Your task to perform on an android device: turn on the 12-hour format for clock Image 0: 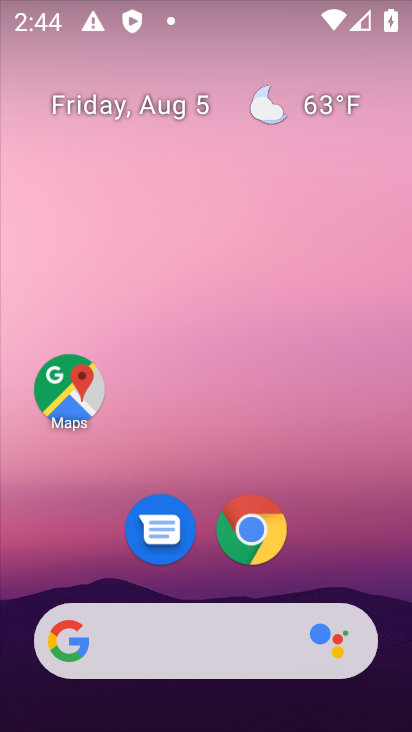
Step 0: press home button
Your task to perform on an android device: turn on the 12-hour format for clock Image 1: 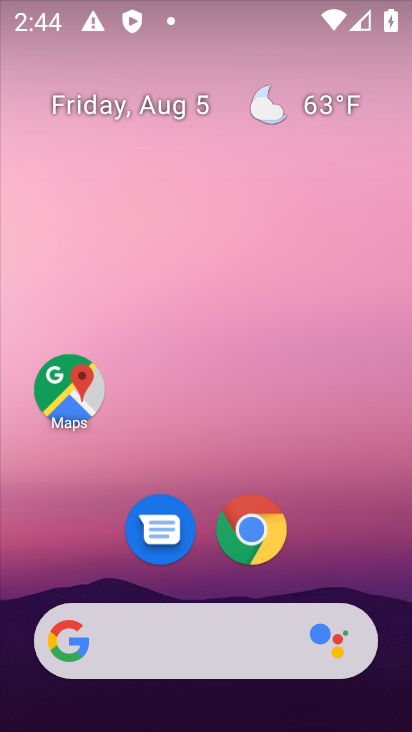
Step 1: drag from (224, 522) to (253, 99)
Your task to perform on an android device: turn on the 12-hour format for clock Image 2: 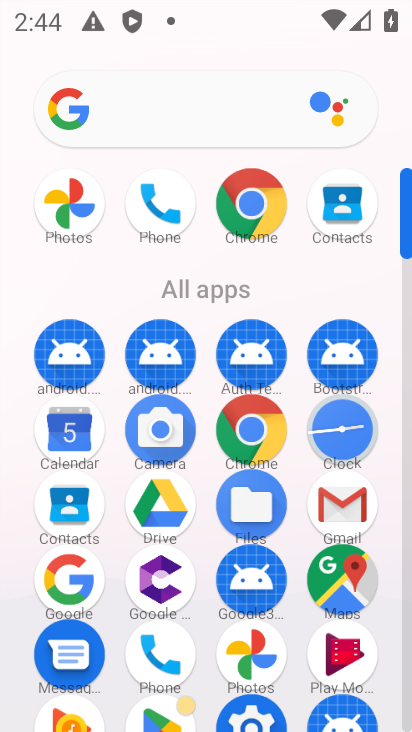
Step 2: drag from (303, 411) to (333, 104)
Your task to perform on an android device: turn on the 12-hour format for clock Image 3: 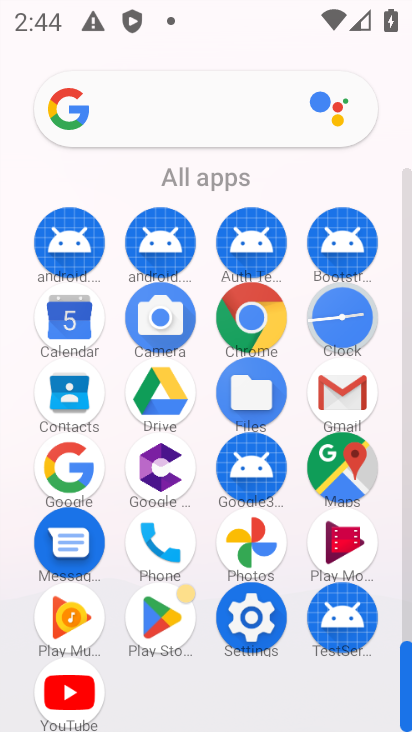
Step 3: click (248, 611)
Your task to perform on an android device: turn on the 12-hour format for clock Image 4: 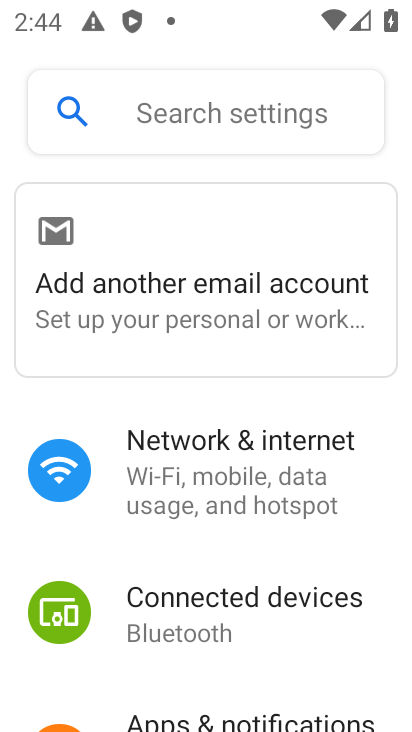
Step 4: drag from (292, 684) to (260, 34)
Your task to perform on an android device: turn on the 12-hour format for clock Image 5: 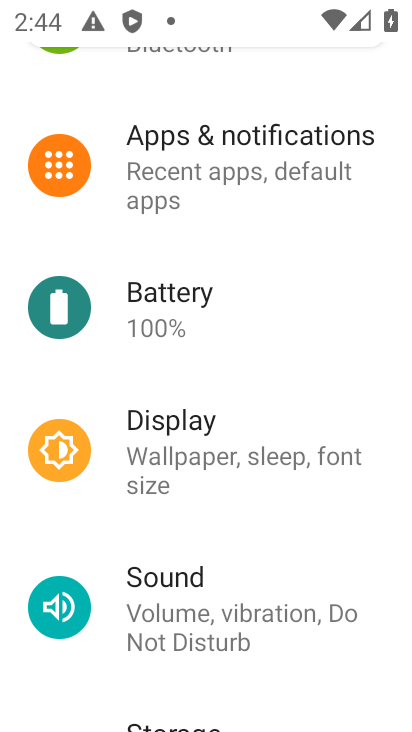
Step 5: drag from (333, 668) to (316, 25)
Your task to perform on an android device: turn on the 12-hour format for clock Image 6: 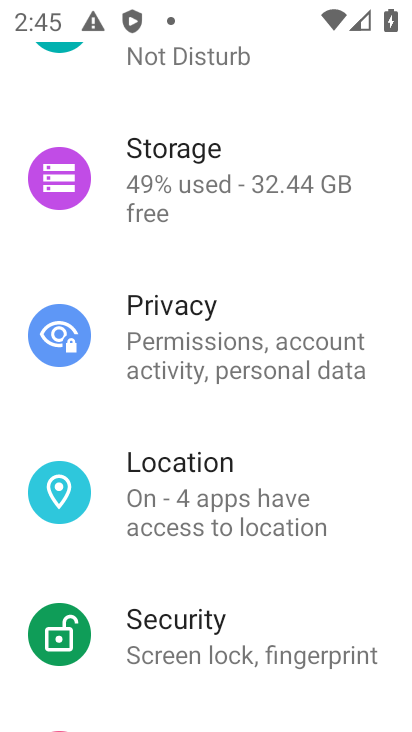
Step 6: drag from (232, 593) to (212, 51)
Your task to perform on an android device: turn on the 12-hour format for clock Image 7: 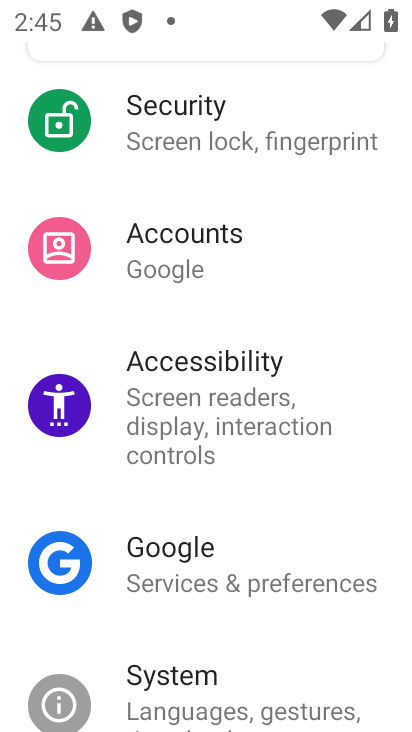
Step 7: drag from (311, 676) to (264, 1)
Your task to perform on an android device: turn on the 12-hour format for clock Image 8: 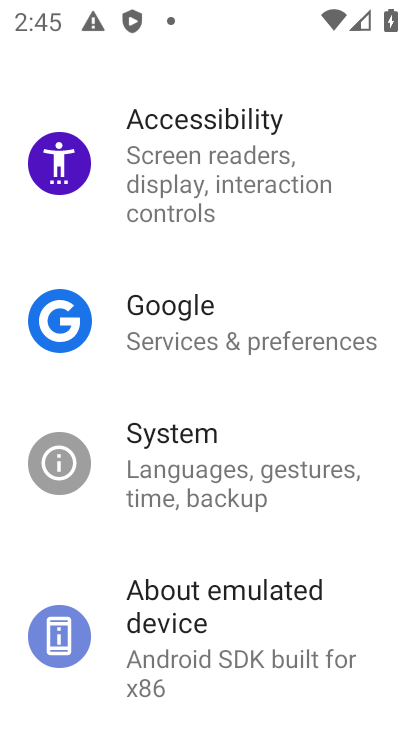
Step 8: click (182, 499)
Your task to perform on an android device: turn on the 12-hour format for clock Image 9: 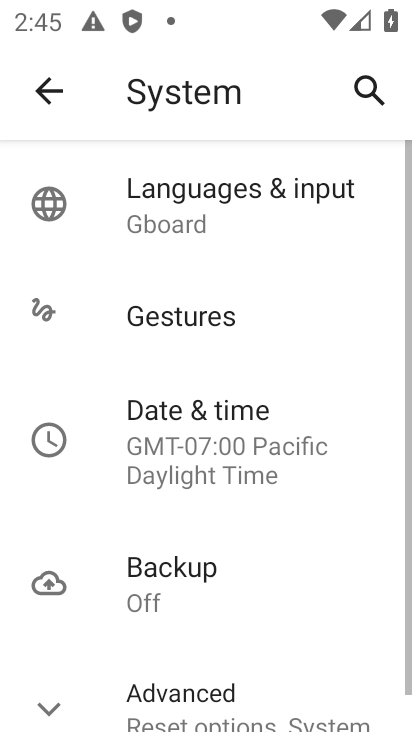
Step 9: click (169, 406)
Your task to perform on an android device: turn on the 12-hour format for clock Image 10: 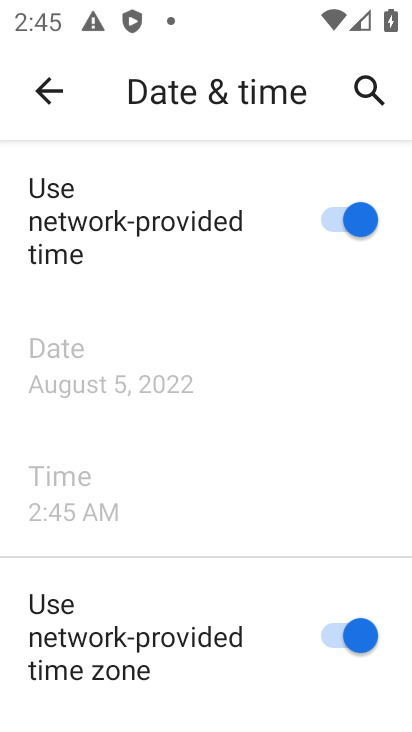
Step 10: drag from (287, 691) to (64, 55)
Your task to perform on an android device: turn on the 12-hour format for clock Image 11: 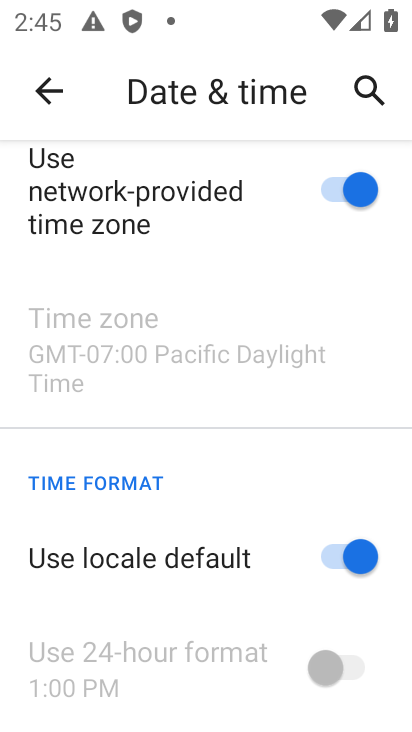
Step 11: click (354, 555)
Your task to perform on an android device: turn on the 12-hour format for clock Image 12: 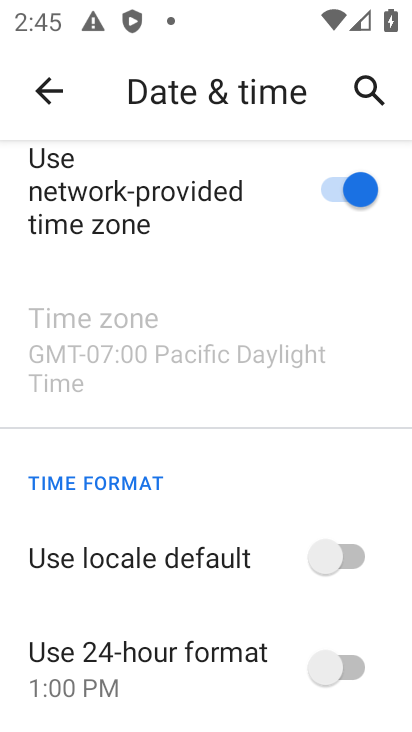
Step 12: task complete